Your task to perform on an android device: Go to location settings Image 0: 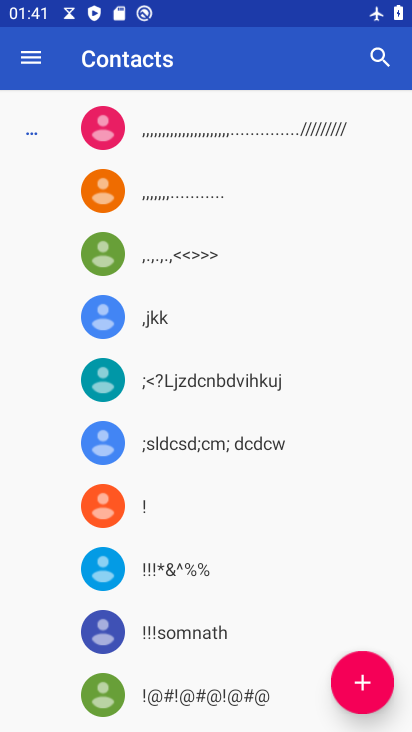
Step 0: press home button
Your task to perform on an android device: Go to location settings Image 1: 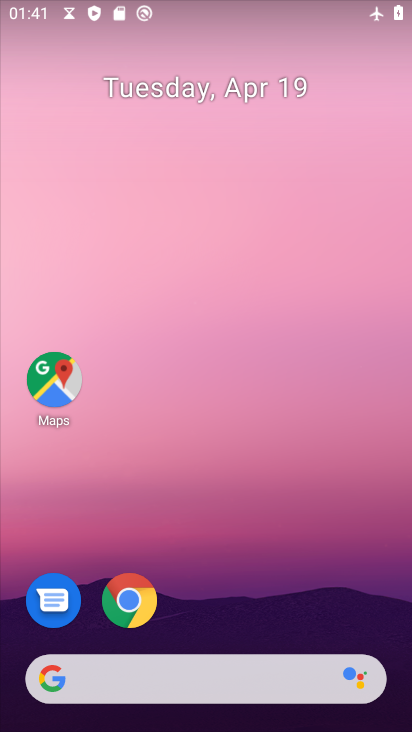
Step 1: drag from (252, 648) to (350, 22)
Your task to perform on an android device: Go to location settings Image 2: 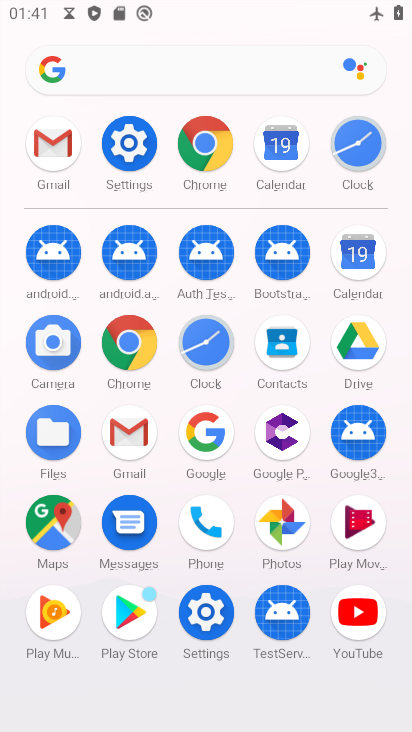
Step 2: click (125, 165)
Your task to perform on an android device: Go to location settings Image 3: 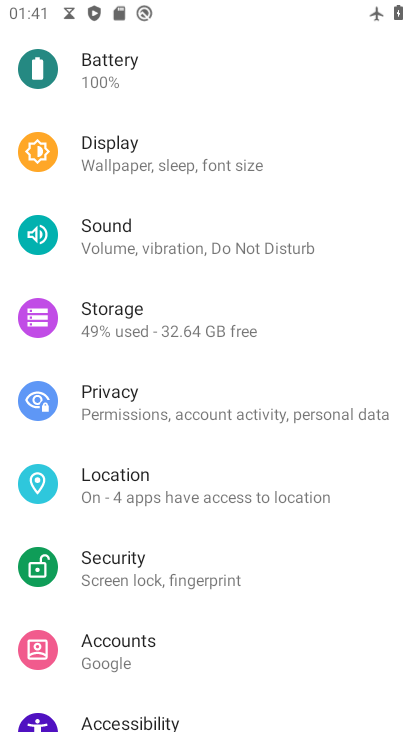
Step 3: click (164, 476)
Your task to perform on an android device: Go to location settings Image 4: 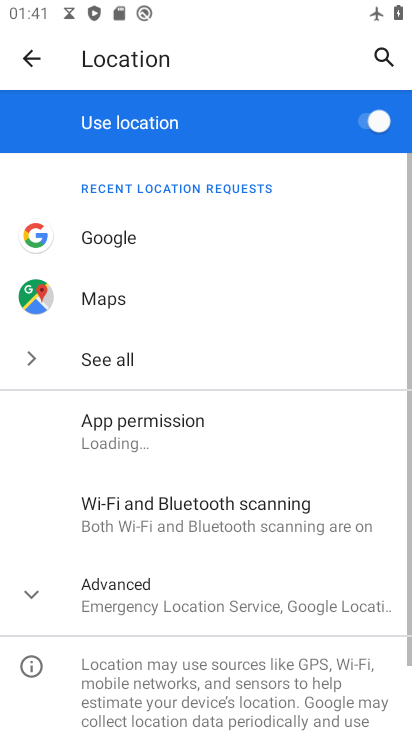
Step 4: drag from (183, 494) to (148, 232)
Your task to perform on an android device: Go to location settings Image 5: 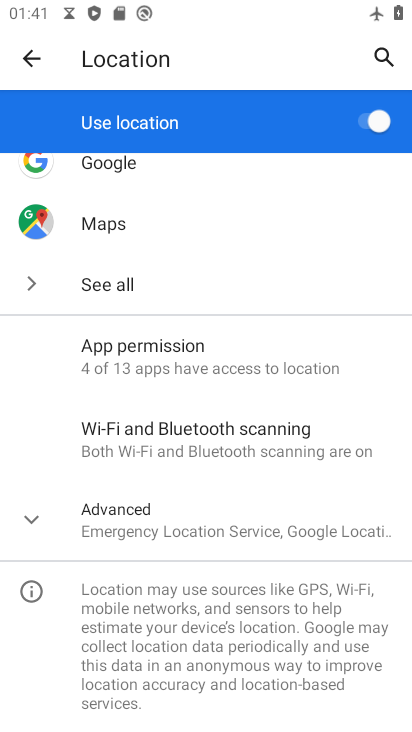
Step 5: click (187, 508)
Your task to perform on an android device: Go to location settings Image 6: 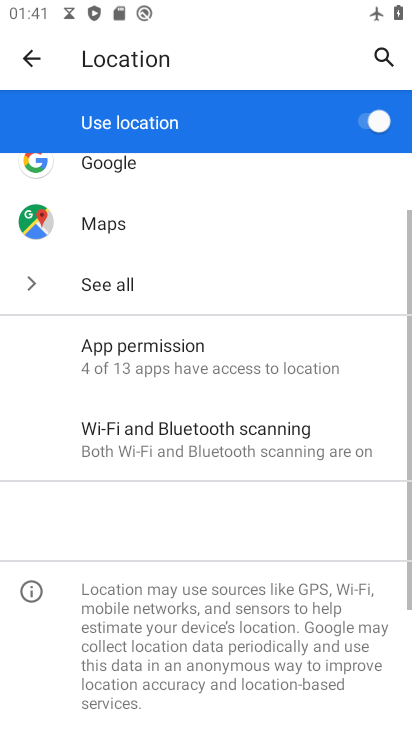
Step 6: task complete